Your task to perform on an android device: change the clock style Image 0: 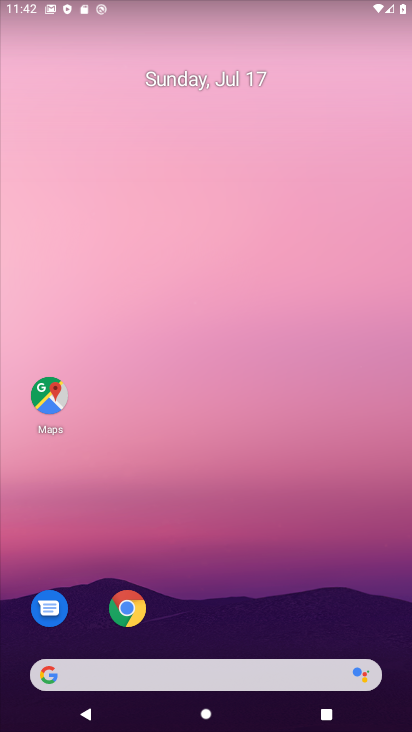
Step 0: drag from (238, 552) to (320, 141)
Your task to perform on an android device: change the clock style Image 1: 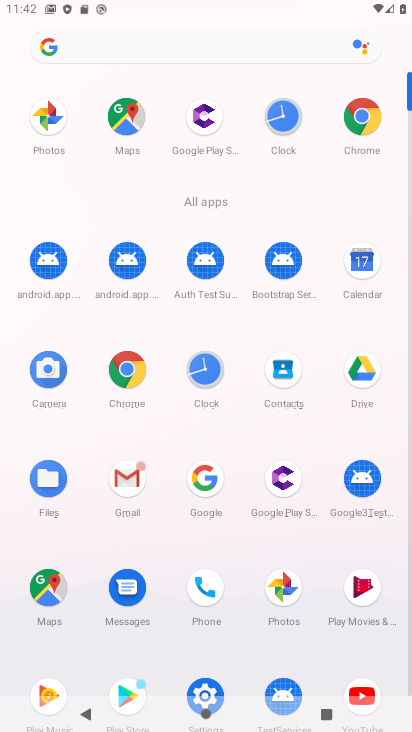
Step 1: click (221, 367)
Your task to perform on an android device: change the clock style Image 2: 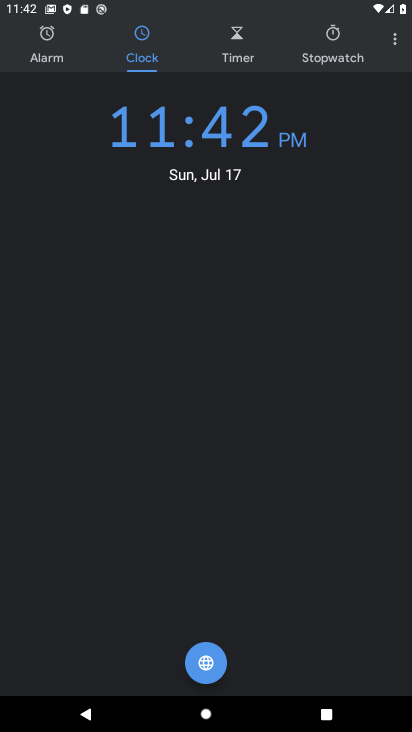
Step 2: click (395, 39)
Your task to perform on an android device: change the clock style Image 3: 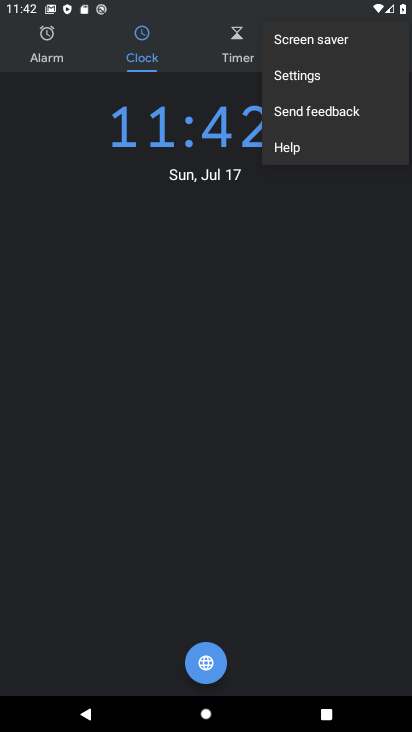
Step 3: click (369, 86)
Your task to perform on an android device: change the clock style Image 4: 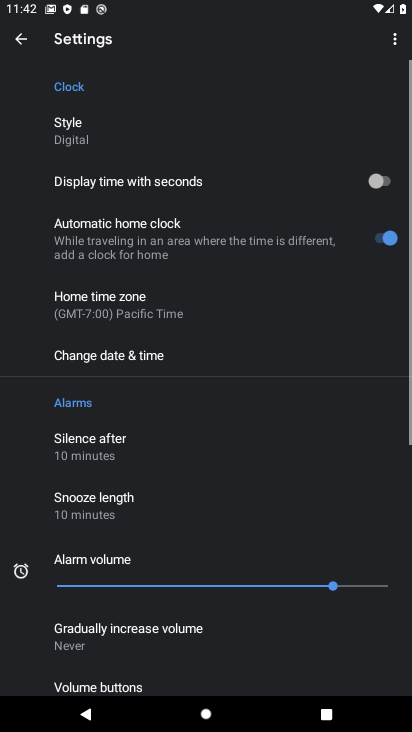
Step 4: click (235, 142)
Your task to perform on an android device: change the clock style Image 5: 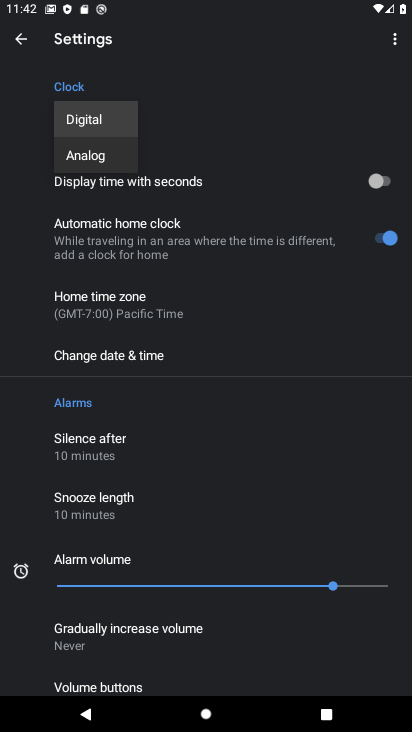
Step 5: click (102, 166)
Your task to perform on an android device: change the clock style Image 6: 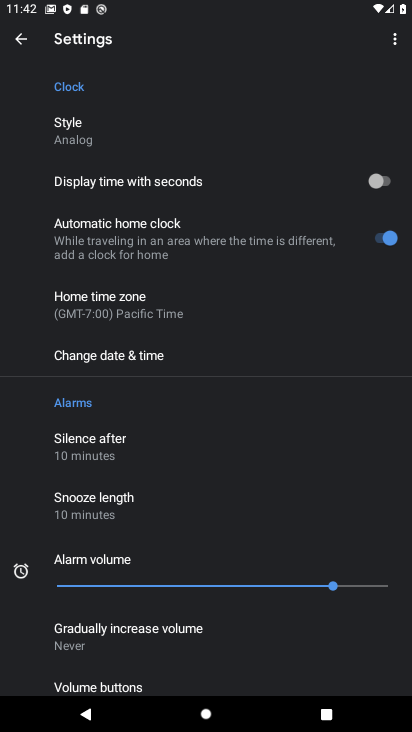
Step 6: task complete